Your task to perform on an android device: Search for seafood restaurants on Google Maps Image 0: 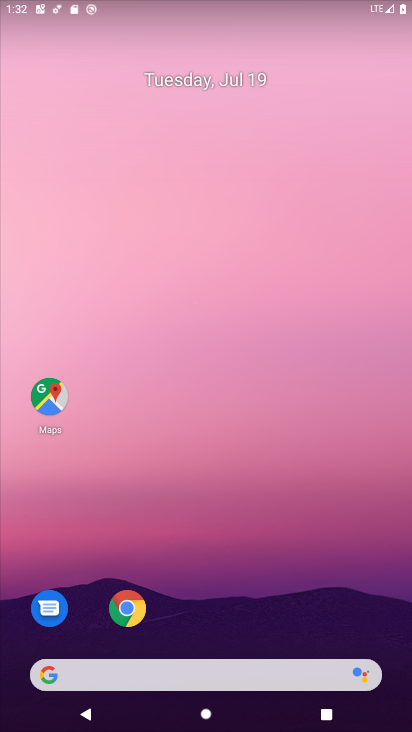
Step 0: drag from (244, 571) to (238, 220)
Your task to perform on an android device: Search for seafood restaurants on Google Maps Image 1: 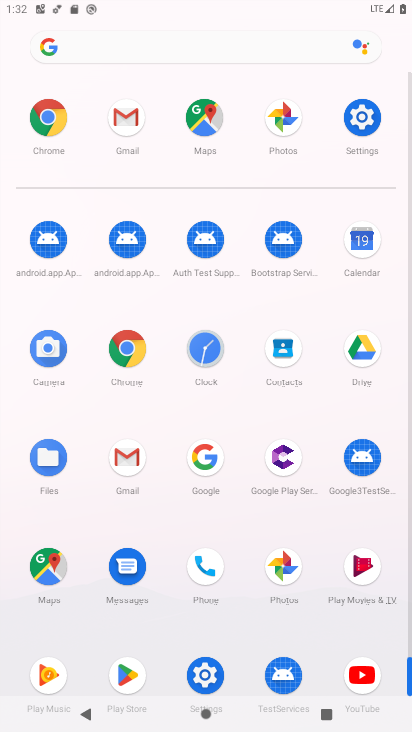
Step 1: click (39, 581)
Your task to perform on an android device: Search for seafood restaurants on Google Maps Image 2: 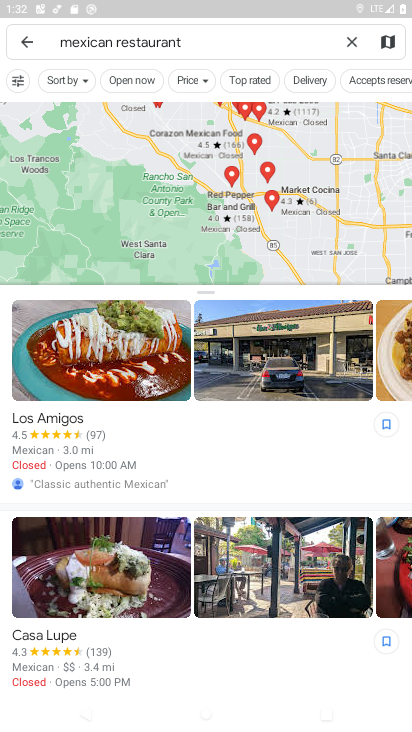
Step 2: click (346, 43)
Your task to perform on an android device: Search for seafood restaurants on Google Maps Image 3: 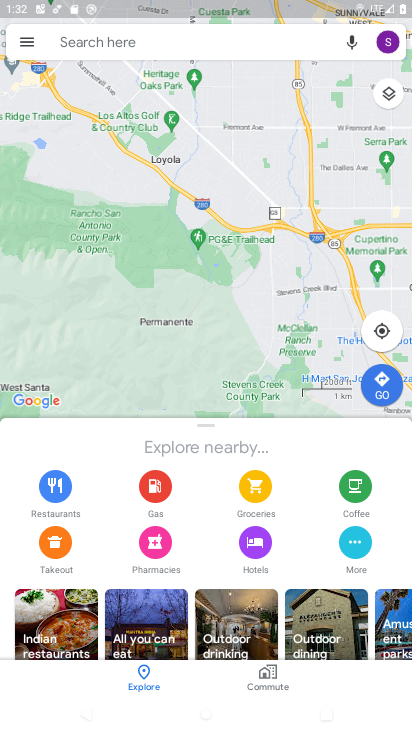
Step 3: click (232, 39)
Your task to perform on an android device: Search for seafood restaurants on Google Maps Image 4: 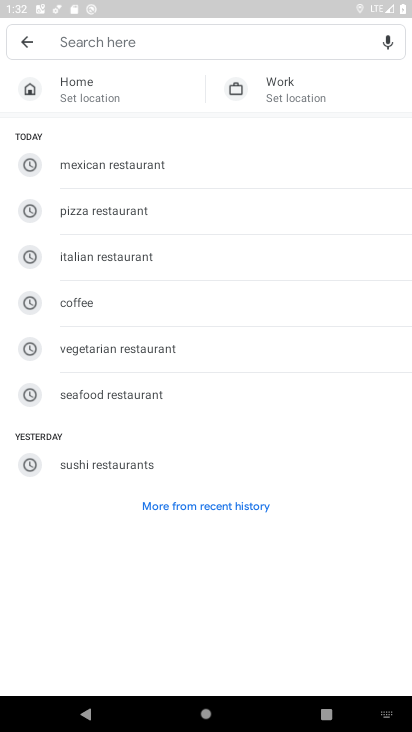
Step 4: click (157, 406)
Your task to perform on an android device: Search for seafood restaurants on Google Maps Image 5: 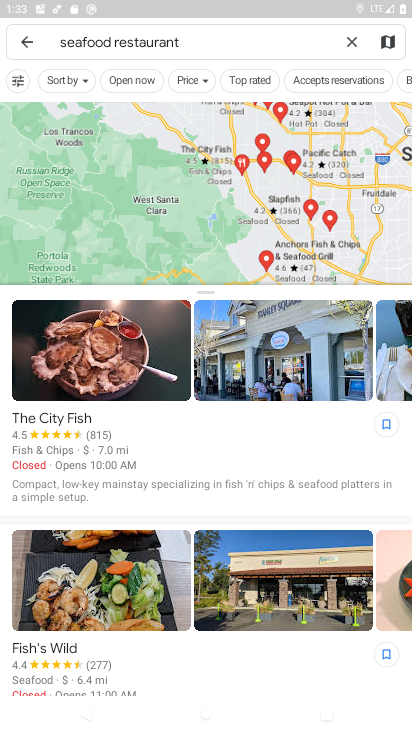
Step 5: task complete